Your task to perform on an android device: Open the phone app and click the voicemail tab. Image 0: 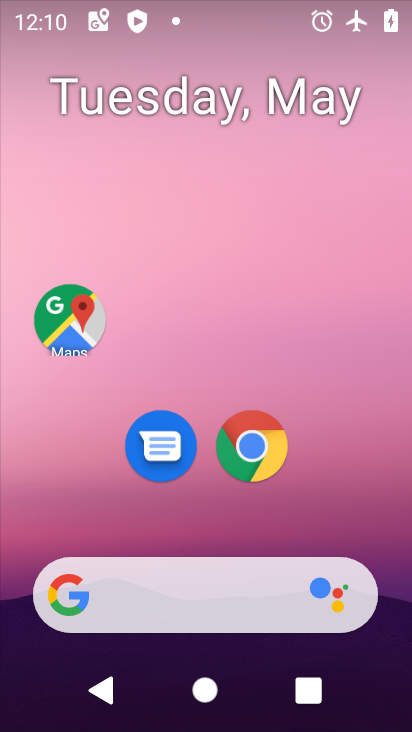
Step 0: drag from (287, 508) to (321, 63)
Your task to perform on an android device: Open the phone app and click the voicemail tab. Image 1: 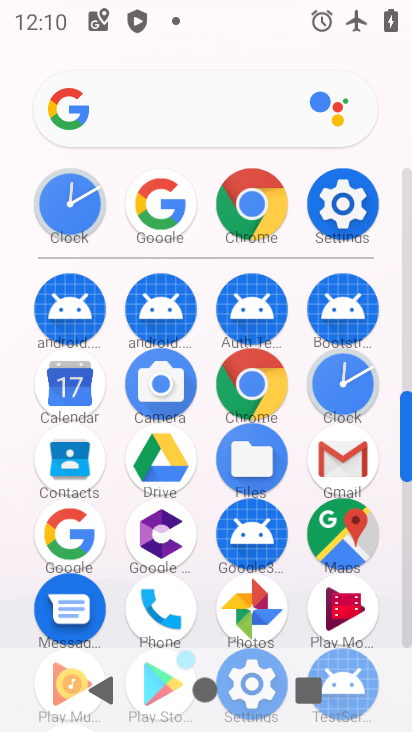
Step 1: click (330, 605)
Your task to perform on an android device: Open the phone app and click the voicemail tab. Image 2: 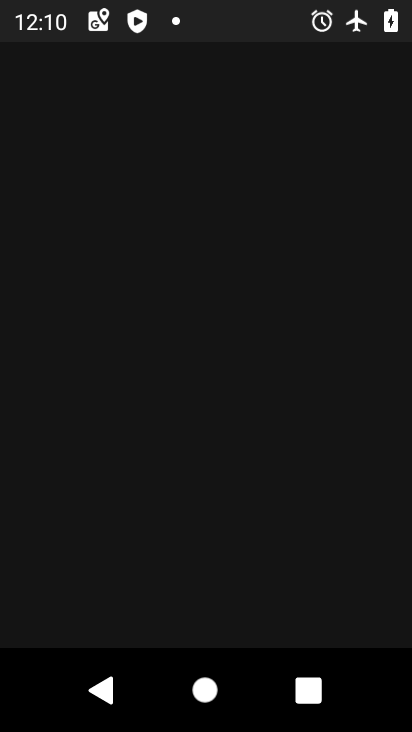
Step 2: press home button
Your task to perform on an android device: Open the phone app and click the voicemail tab. Image 3: 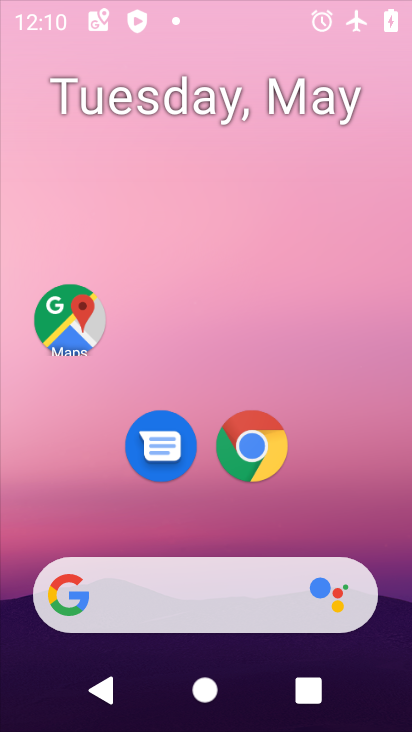
Step 3: drag from (230, 581) to (242, 261)
Your task to perform on an android device: Open the phone app and click the voicemail tab. Image 4: 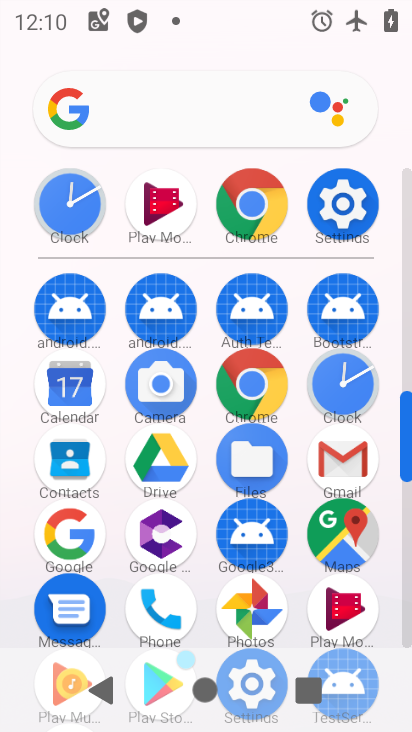
Step 4: drag from (222, 627) to (263, 272)
Your task to perform on an android device: Open the phone app and click the voicemail tab. Image 5: 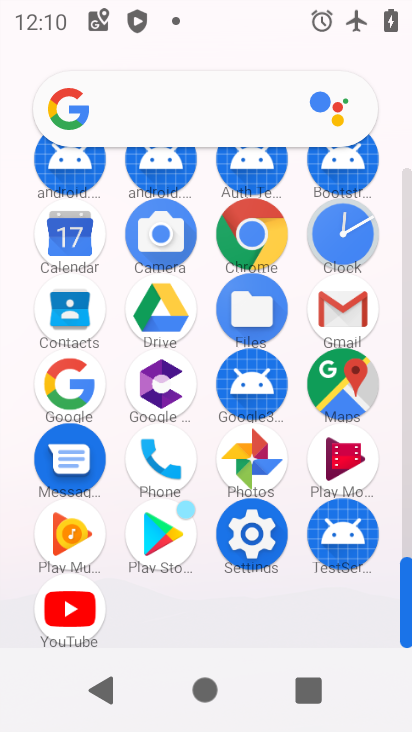
Step 5: click (145, 473)
Your task to perform on an android device: Open the phone app and click the voicemail tab. Image 6: 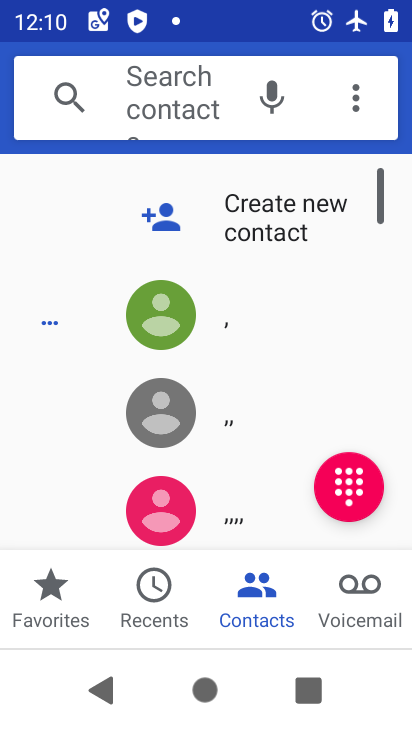
Step 6: click (342, 587)
Your task to perform on an android device: Open the phone app and click the voicemail tab. Image 7: 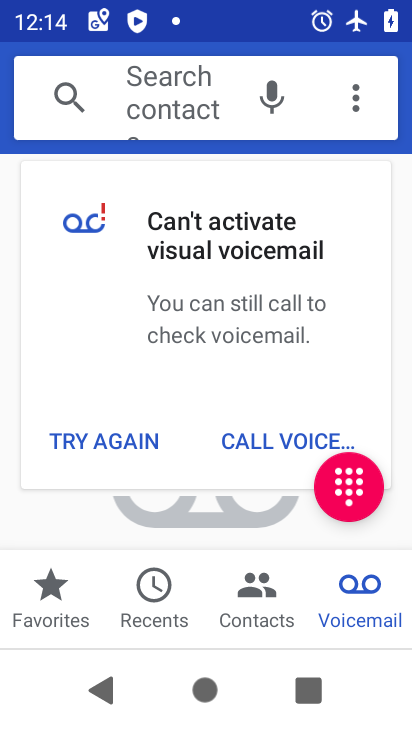
Step 7: task complete